Your task to perform on an android device: What's the weather today? Image 0: 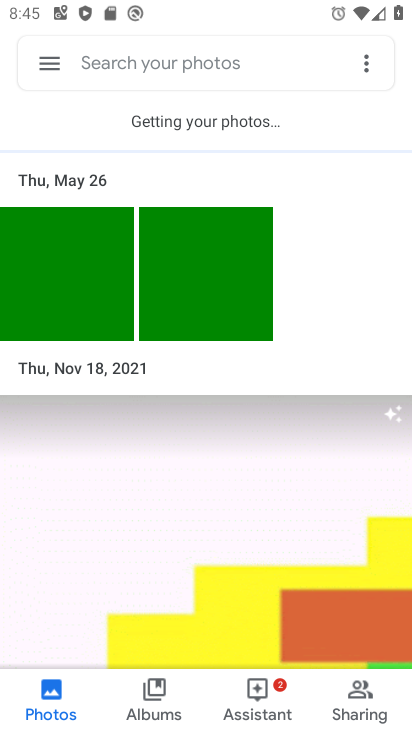
Step 0: press home button
Your task to perform on an android device: What's the weather today? Image 1: 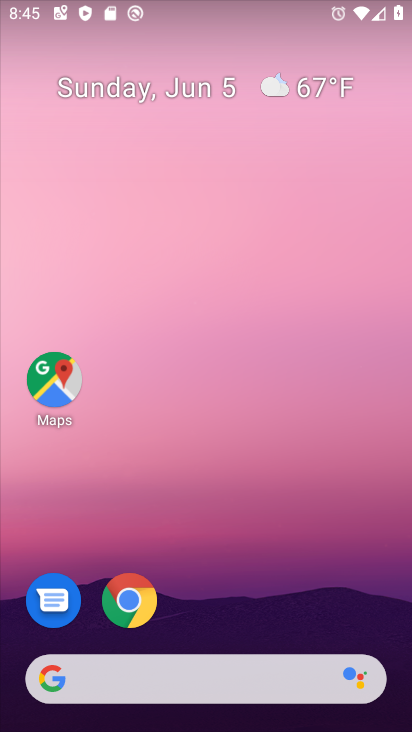
Step 1: drag from (384, 639) to (261, 52)
Your task to perform on an android device: What's the weather today? Image 2: 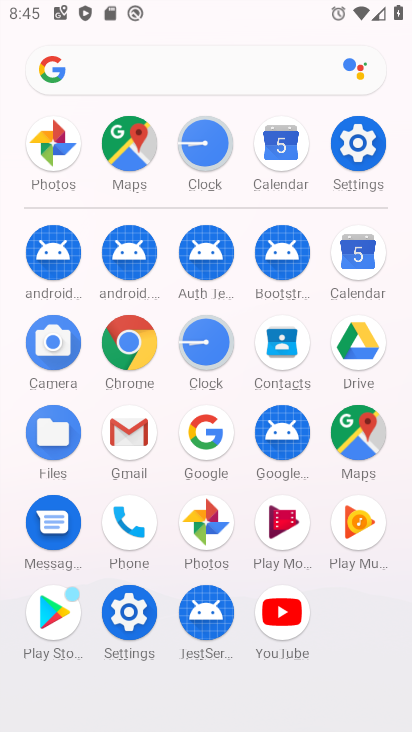
Step 2: click (222, 419)
Your task to perform on an android device: What's the weather today? Image 3: 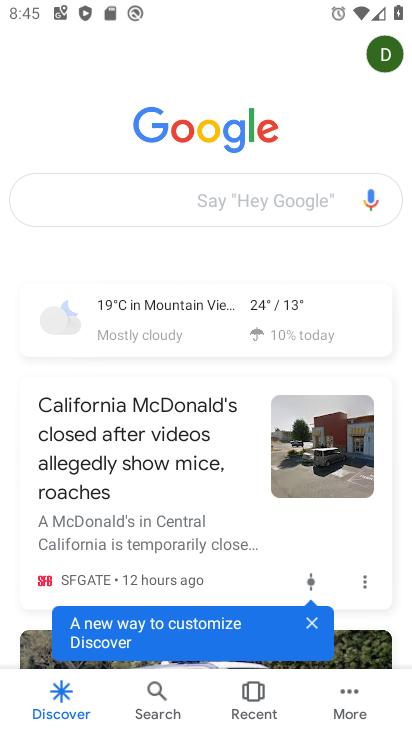
Step 3: click (172, 201)
Your task to perform on an android device: What's the weather today? Image 4: 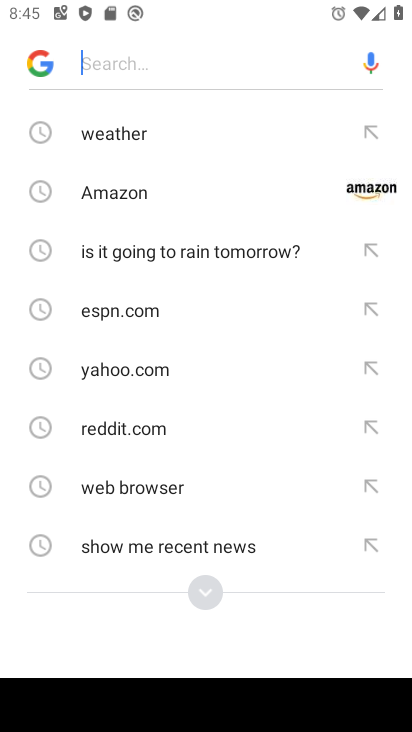
Step 4: click (212, 590)
Your task to perform on an android device: What's the weather today? Image 5: 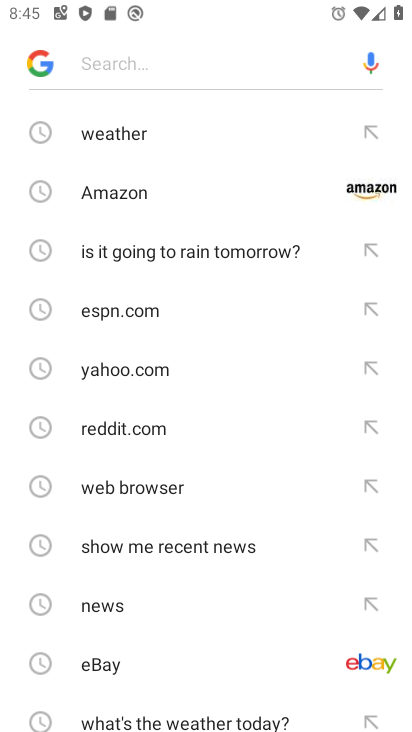
Step 5: drag from (209, 585) to (212, 285)
Your task to perform on an android device: What's the weather today? Image 6: 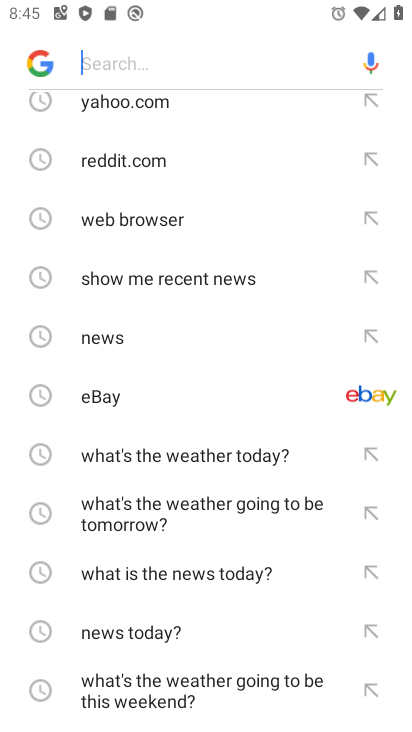
Step 6: click (233, 461)
Your task to perform on an android device: What's the weather today? Image 7: 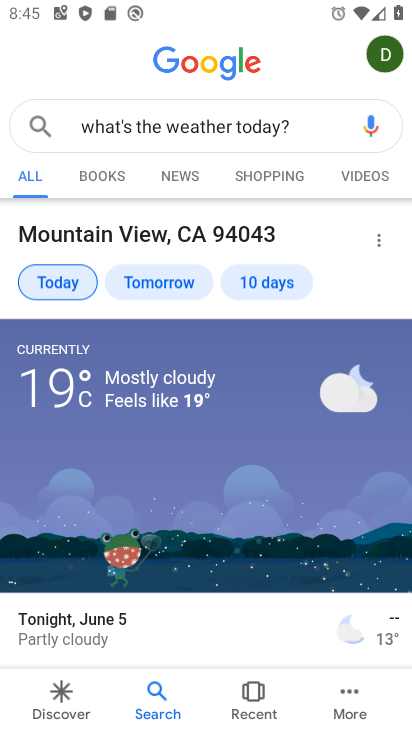
Step 7: task complete